Your task to perform on an android device: toggle translation in the chrome app Image 0: 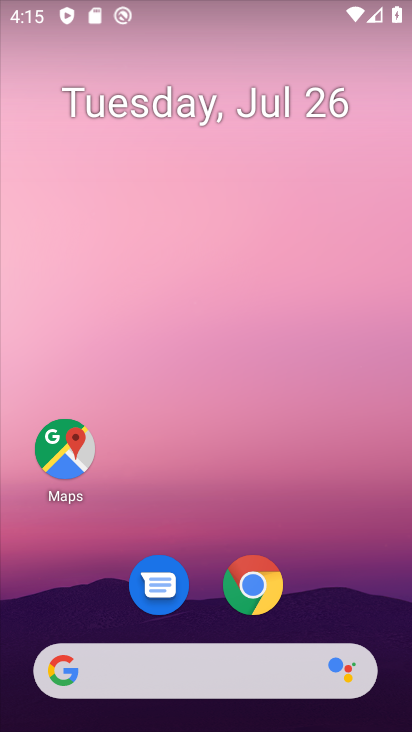
Step 0: click (265, 584)
Your task to perform on an android device: toggle translation in the chrome app Image 1: 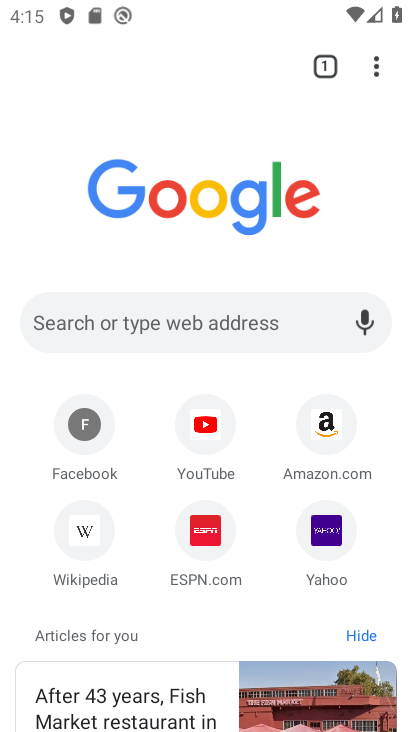
Step 1: click (372, 68)
Your task to perform on an android device: toggle translation in the chrome app Image 2: 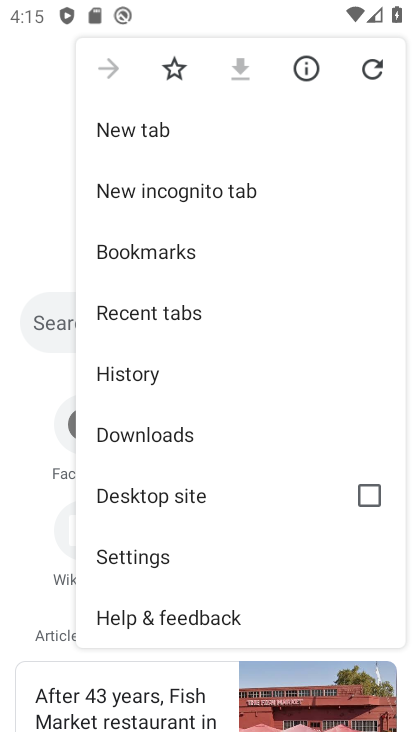
Step 2: click (165, 549)
Your task to perform on an android device: toggle translation in the chrome app Image 3: 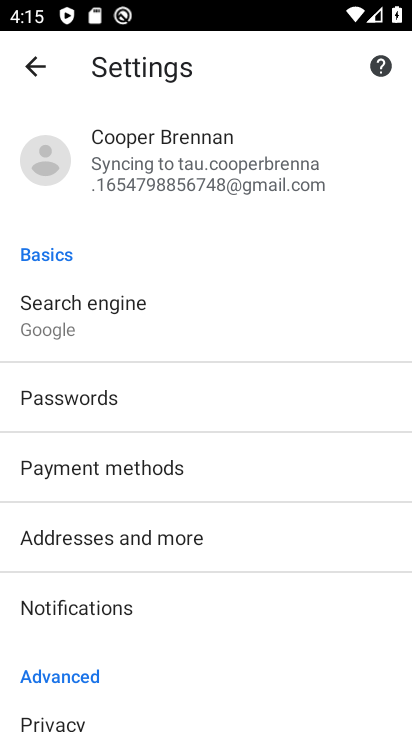
Step 3: drag from (258, 599) to (181, 260)
Your task to perform on an android device: toggle translation in the chrome app Image 4: 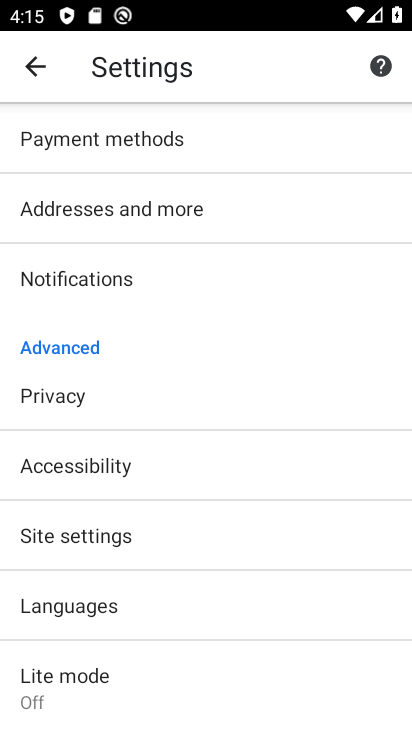
Step 4: click (249, 595)
Your task to perform on an android device: toggle translation in the chrome app Image 5: 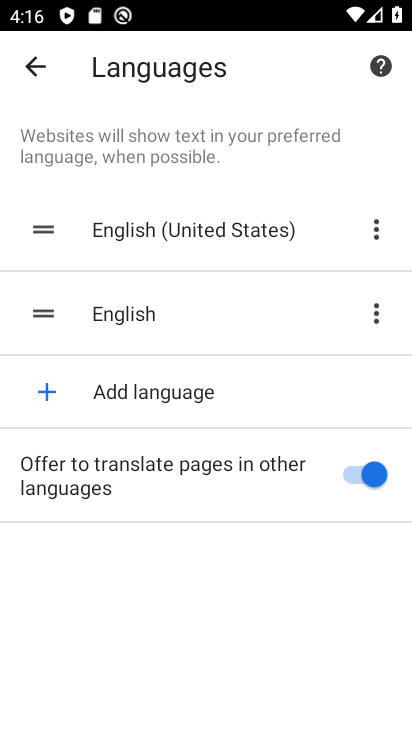
Step 5: click (353, 455)
Your task to perform on an android device: toggle translation in the chrome app Image 6: 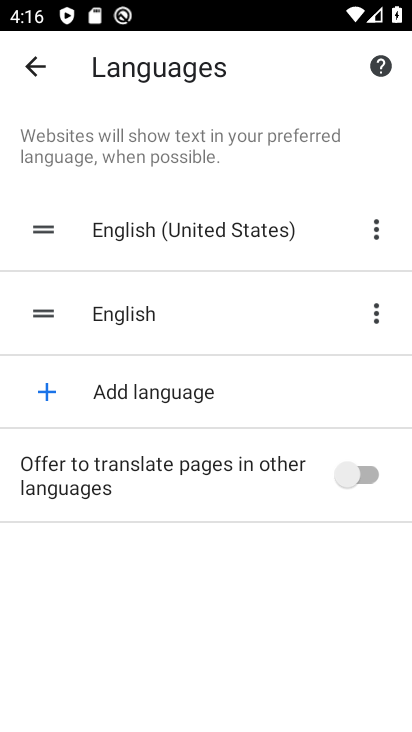
Step 6: task complete